Your task to perform on an android device: check storage Image 0: 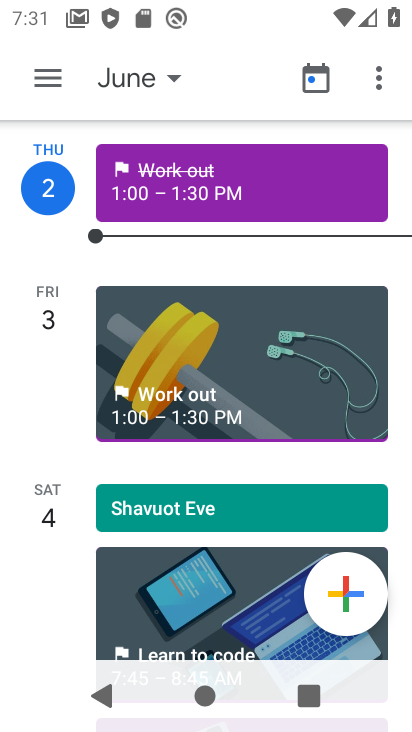
Step 0: press home button
Your task to perform on an android device: check storage Image 1: 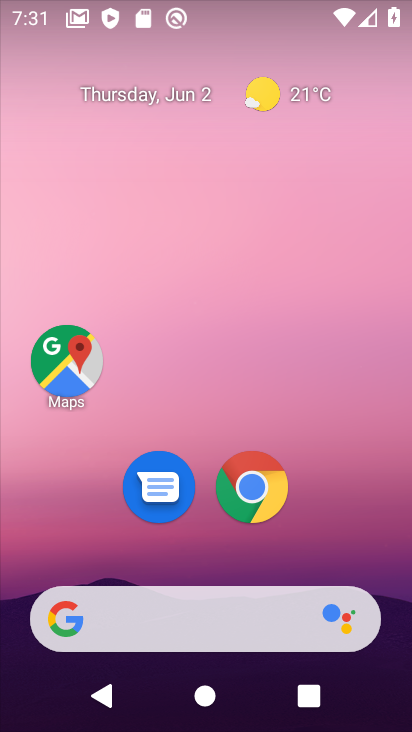
Step 1: drag from (156, 574) to (167, 166)
Your task to perform on an android device: check storage Image 2: 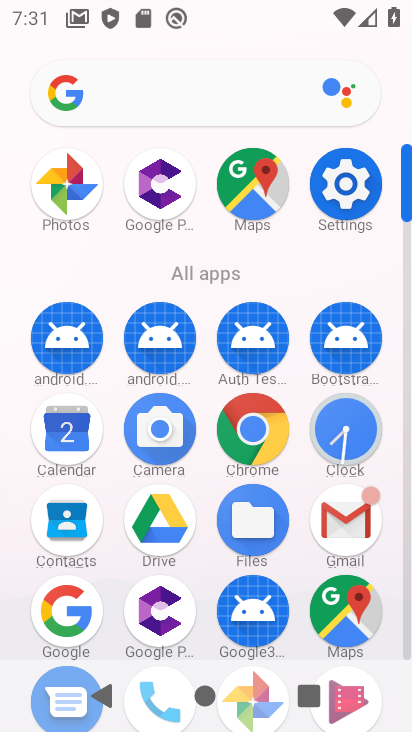
Step 2: click (349, 187)
Your task to perform on an android device: check storage Image 3: 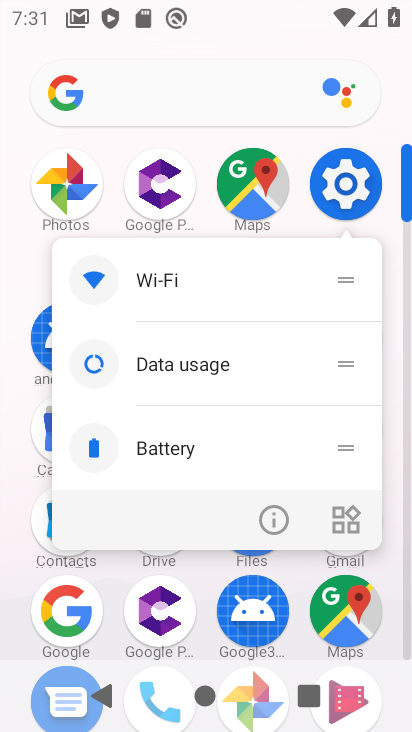
Step 3: click (340, 178)
Your task to perform on an android device: check storage Image 4: 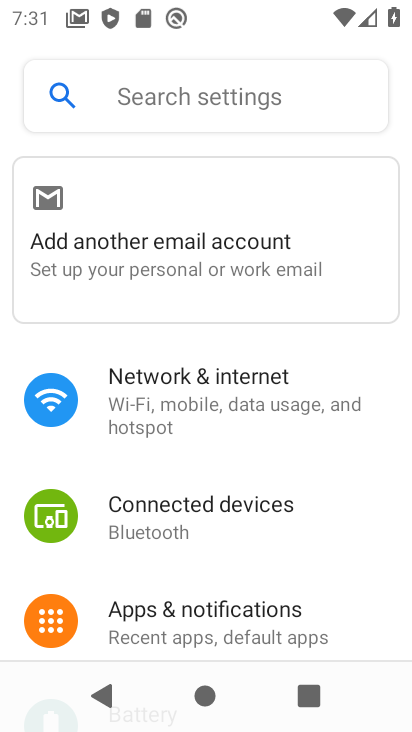
Step 4: drag from (193, 562) to (230, 271)
Your task to perform on an android device: check storage Image 5: 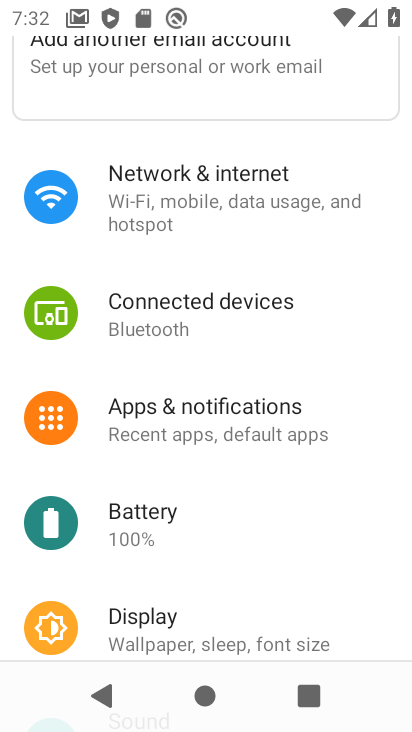
Step 5: drag from (189, 602) to (263, 294)
Your task to perform on an android device: check storage Image 6: 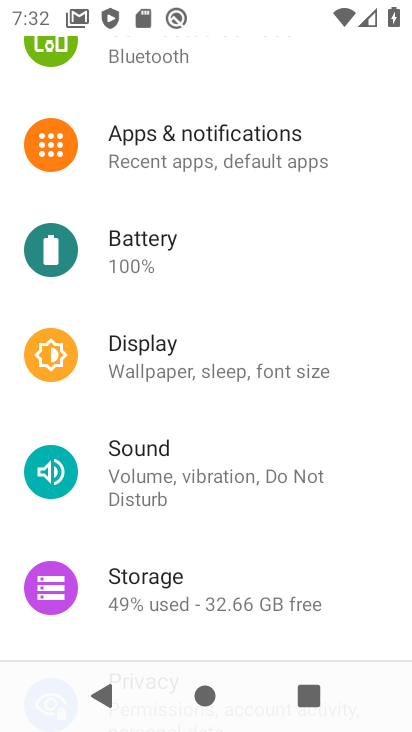
Step 6: click (179, 604)
Your task to perform on an android device: check storage Image 7: 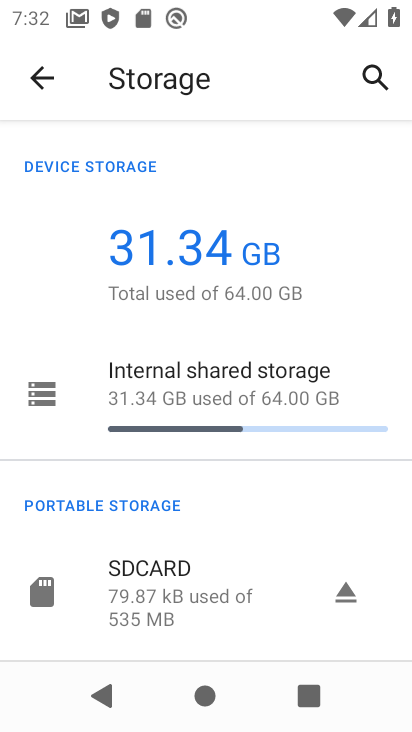
Step 7: task complete